Your task to perform on an android device: toggle sleep mode Image 0: 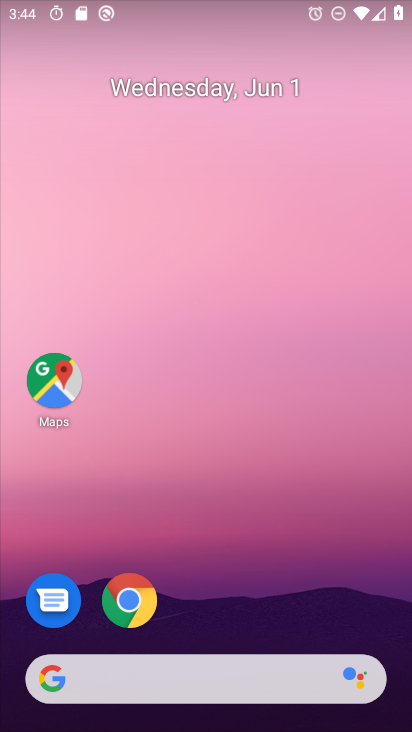
Step 0: drag from (221, 162) to (197, 226)
Your task to perform on an android device: toggle sleep mode Image 1: 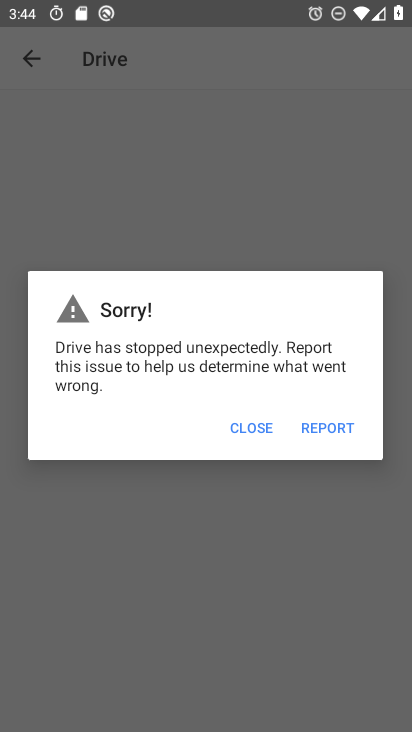
Step 1: press back button
Your task to perform on an android device: toggle sleep mode Image 2: 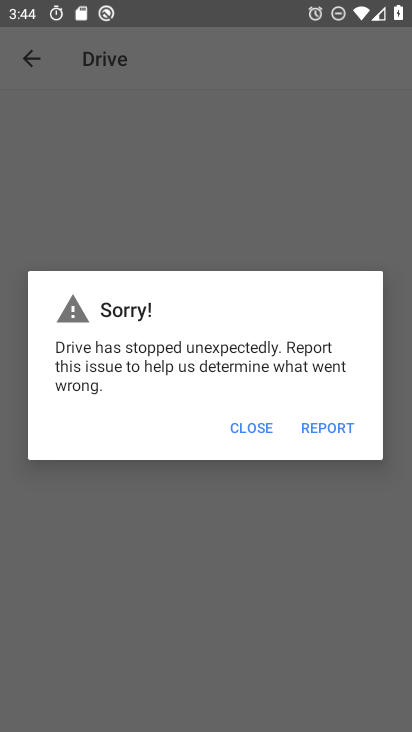
Step 2: press home button
Your task to perform on an android device: toggle sleep mode Image 3: 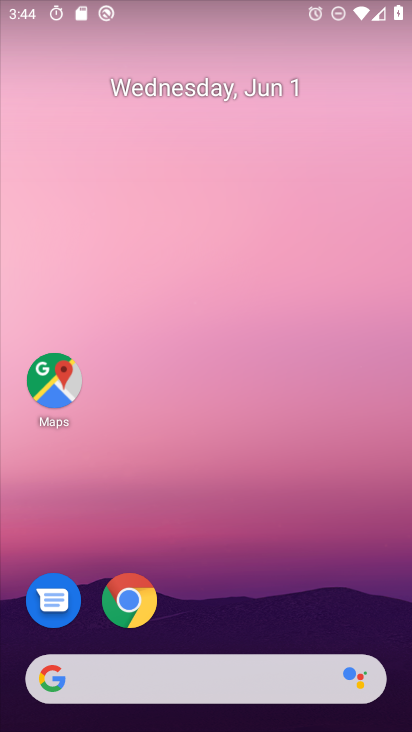
Step 3: drag from (209, 607) to (247, 251)
Your task to perform on an android device: toggle sleep mode Image 4: 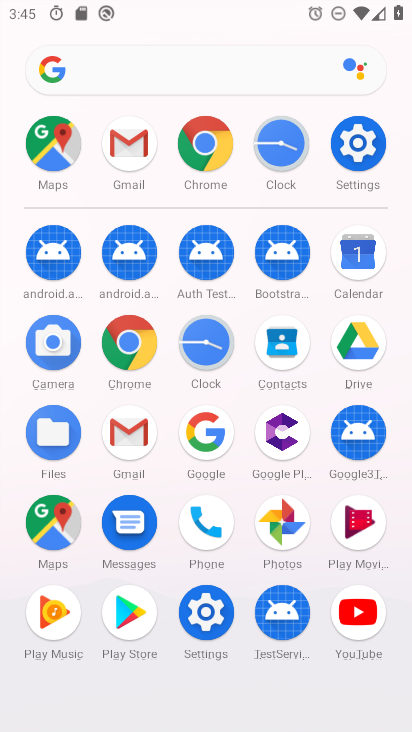
Step 4: click (205, 610)
Your task to perform on an android device: toggle sleep mode Image 5: 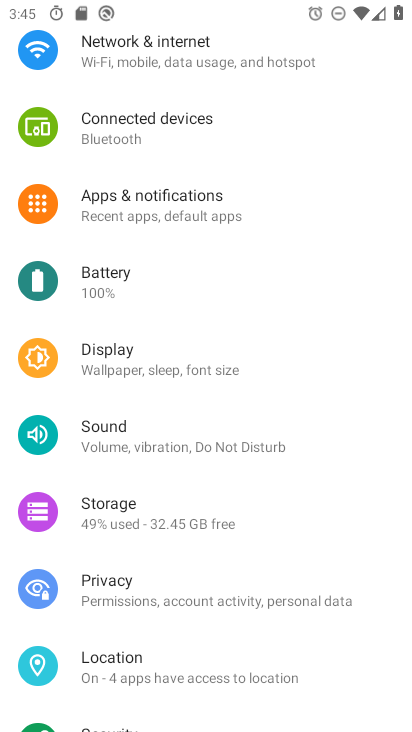
Step 5: task complete